Your task to perform on an android device: toggle show notifications on the lock screen Image 0: 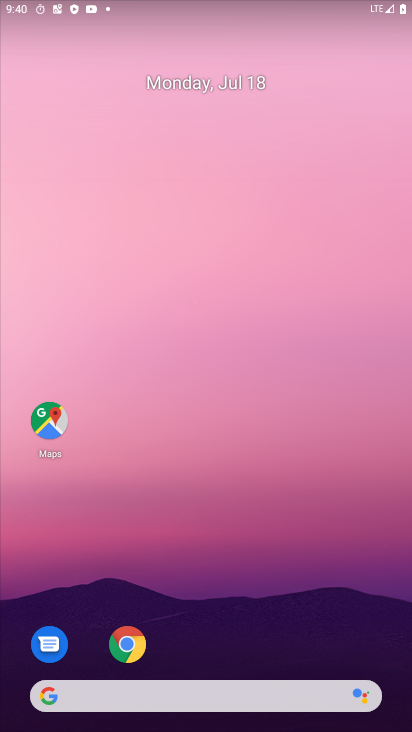
Step 0: press home button
Your task to perform on an android device: toggle show notifications on the lock screen Image 1: 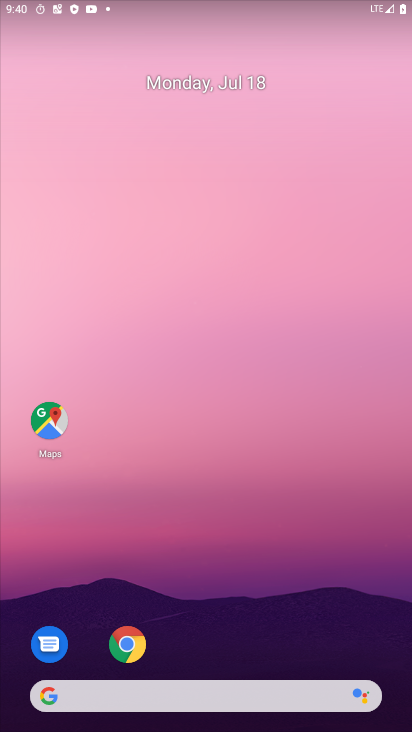
Step 1: drag from (204, 649) to (161, 60)
Your task to perform on an android device: toggle show notifications on the lock screen Image 2: 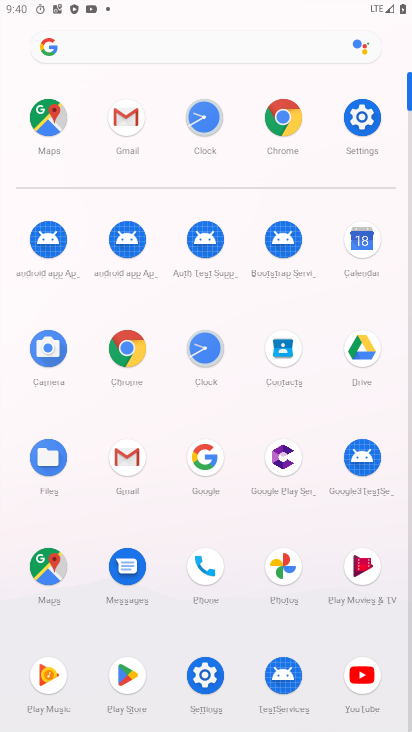
Step 2: click (218, 682)
Your task to perform on an android device: toggle show notifications on the lock screen Image 3: 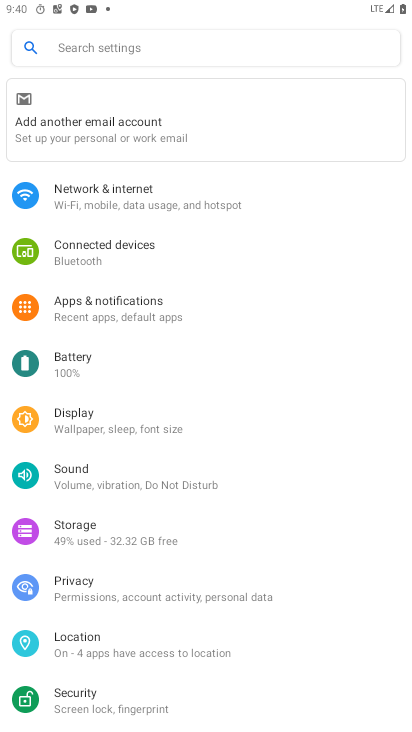
Step 3: click (166, 318)
Your task to perform on an android device: toggle show notifications on the lock screen Image 4: 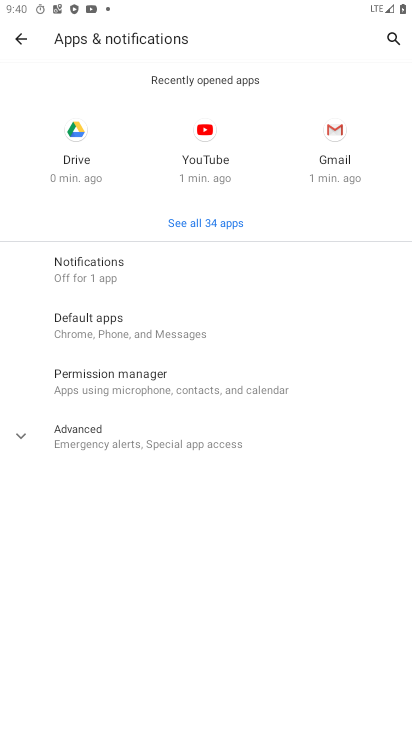
Step 4: click (109, 266)
Your task to perform on an android device: toggle show notifications on the lock screen Image 5: 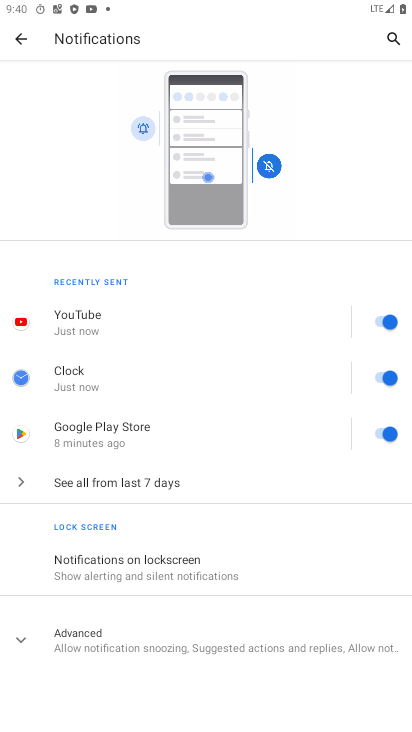
Step 5: click (150, 572)
Your task to perform on an android device: toggle show notifications on the lock screen Image 6: 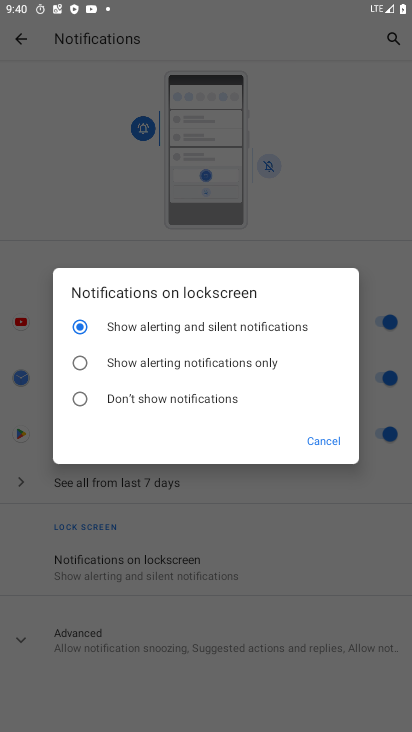
Step 6: click (105, 346)
Your task to perform on an android device: toggle show notifications on the lock screen Image 7: 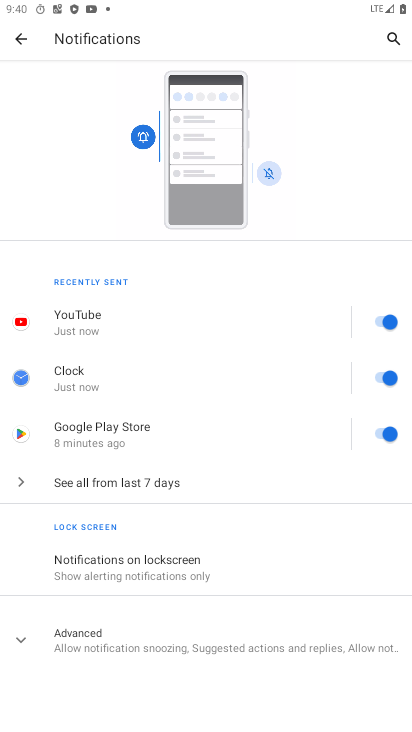
Step 7: task complete